Your task to perform on an android device: turn off wifi Image 0: 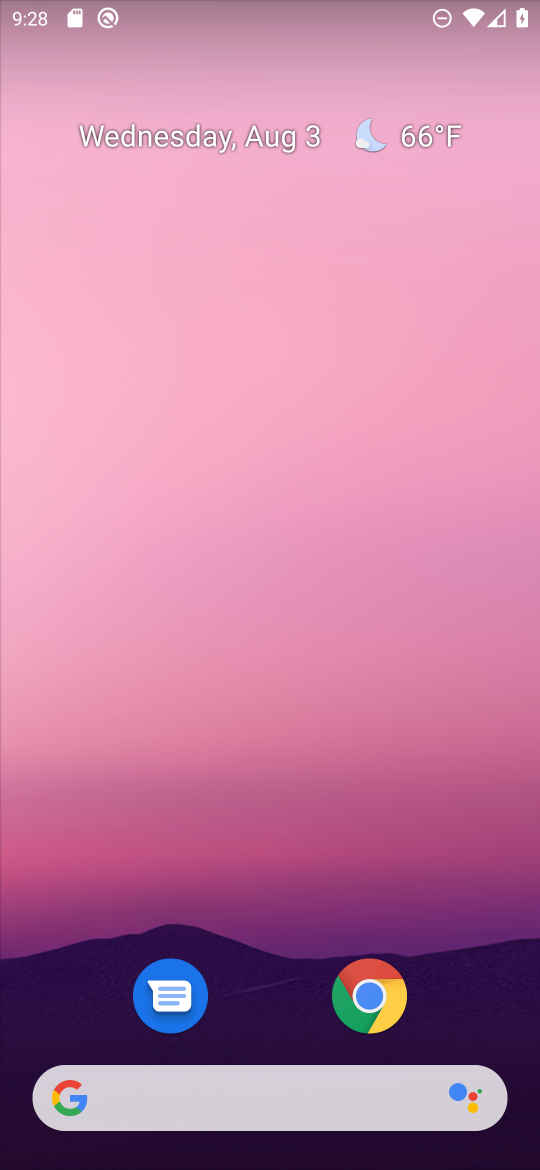
Step 0: drag from (329, 808) to (314, 0)
Your task to perform on an android device: turn off wifi Image 1: 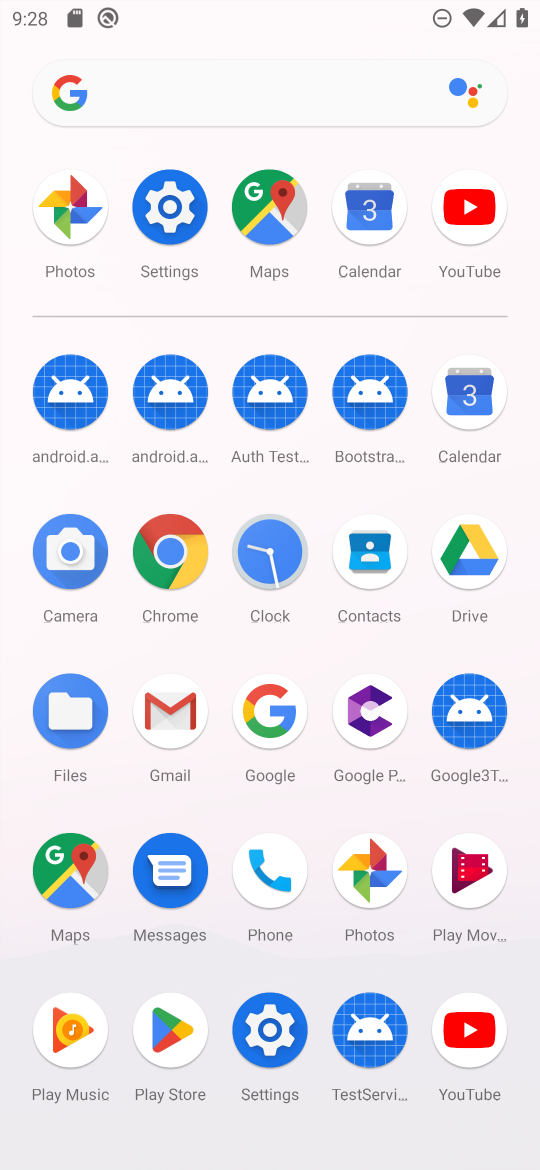
Step 1: click (178, 224)
Your task to perform on an android device: turn off wifi Image 2: 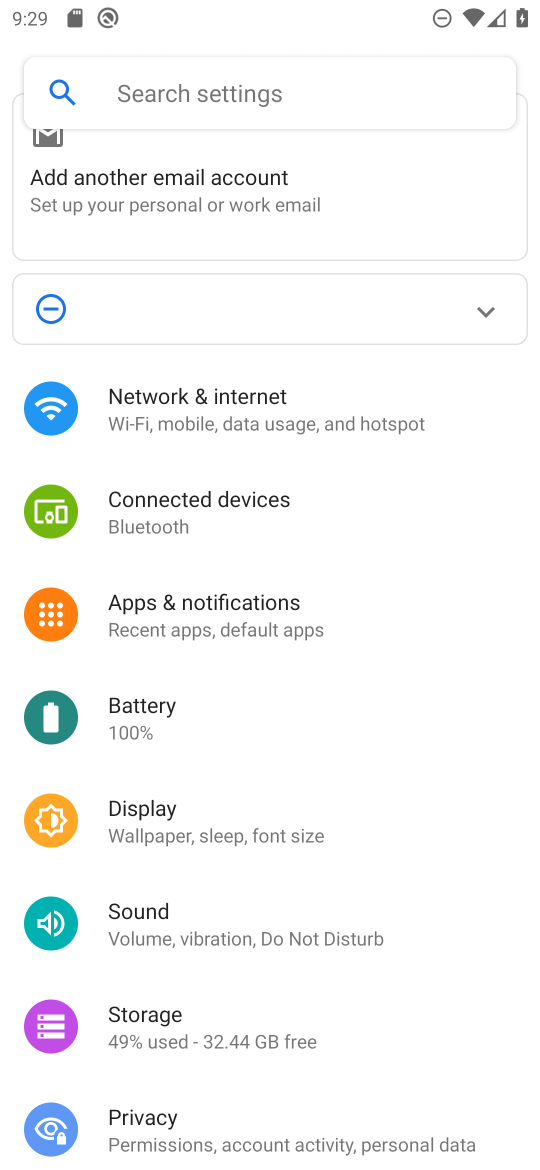
Step 2: click (256, 406)
Your task to perform on an android device: turn off wifi Image 3: 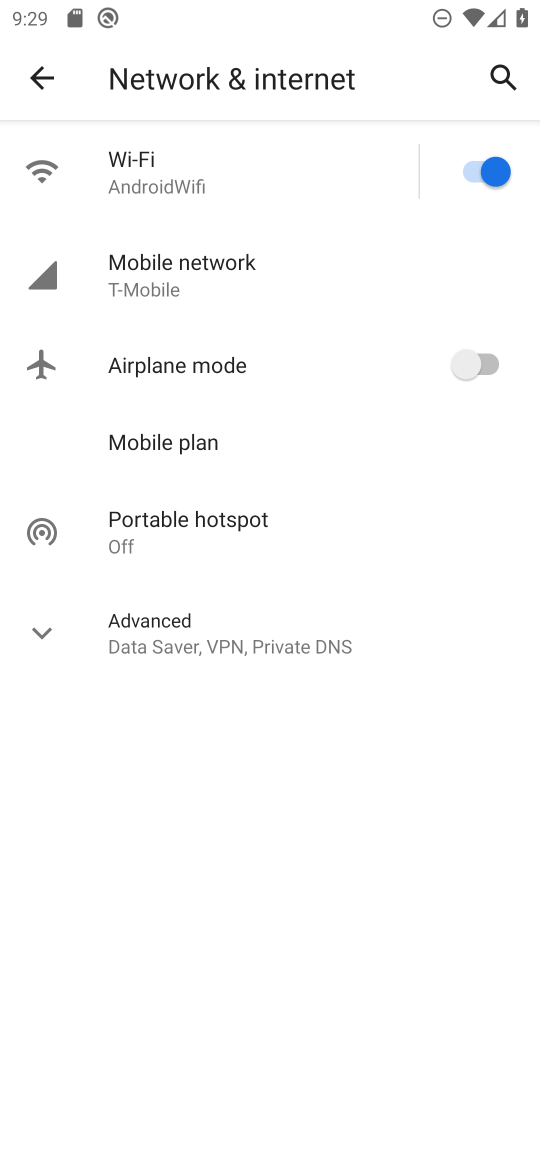
Step 3: click (466, 165)
Your task to perform on an android device: turn off wifi Image 4: 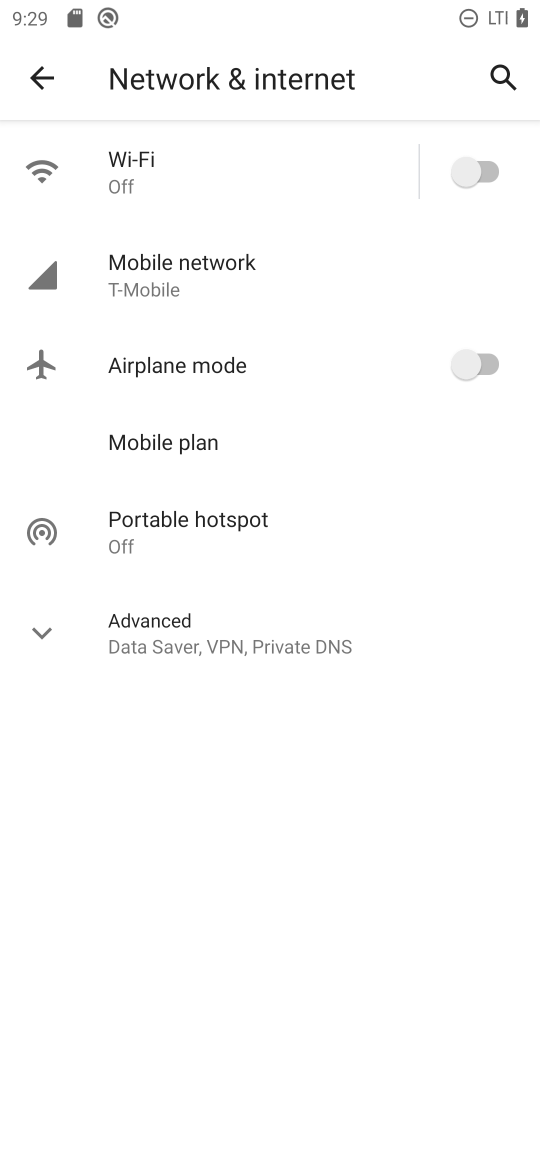
Step 4: task complete